Your task to perform on an android device: Open notification settings Image 0: 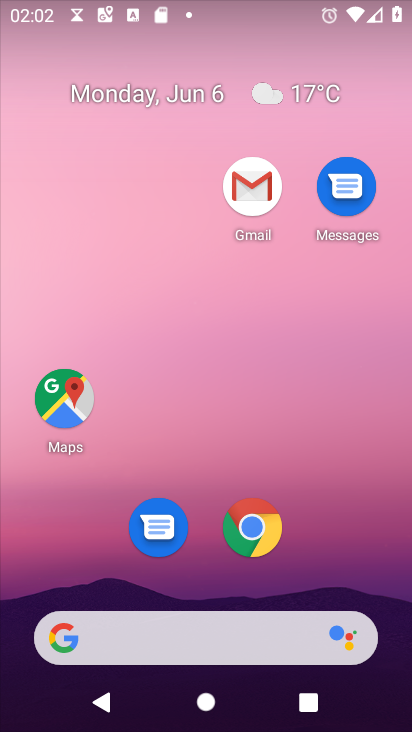
Step 0: drag from (288, 372) to (193, 190)
Your task to perform on an android device: Open notification settings Image 1: 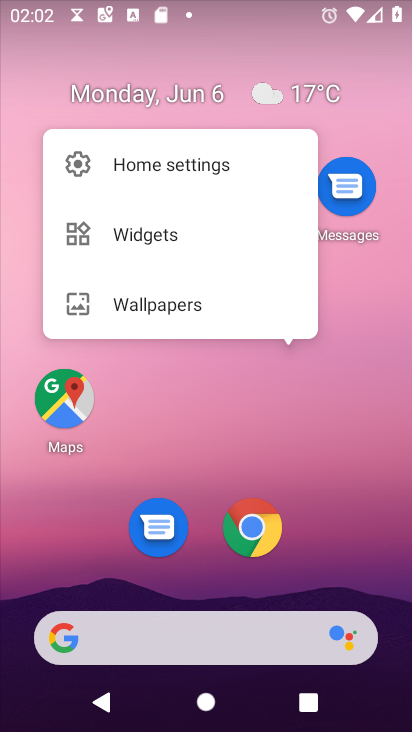
Step 1: click (341, 376)
Your task to perform on an android device: Open notification settings Image 2: 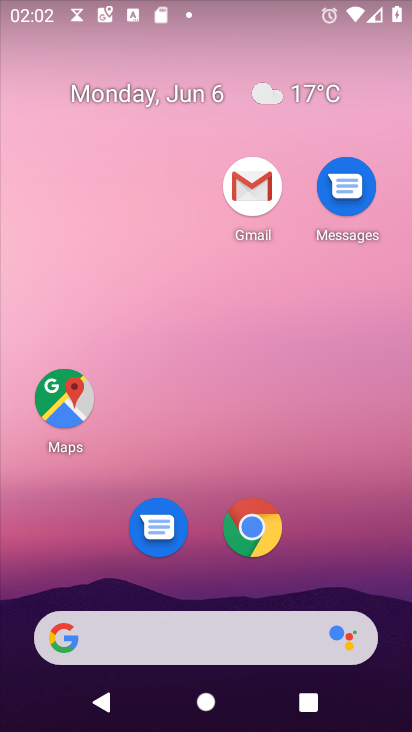
Step 2: drag from (209, 463) to (83, 146)
Your task to perform on an android device: Open notification settings Image 3: 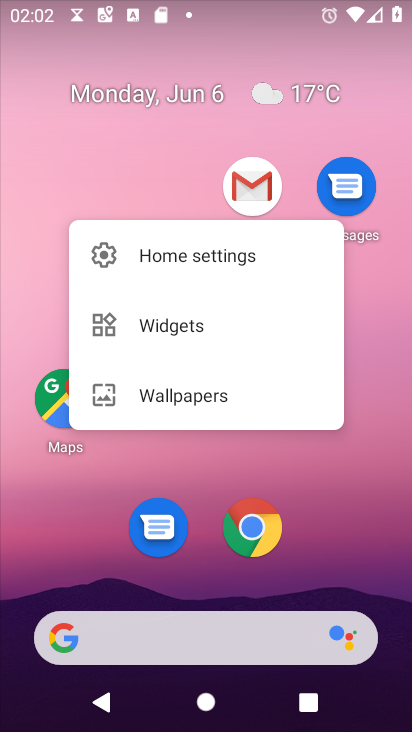
Step 3: click (405, 403)
Your task to perform on an android device: Open notification settings Image 4: 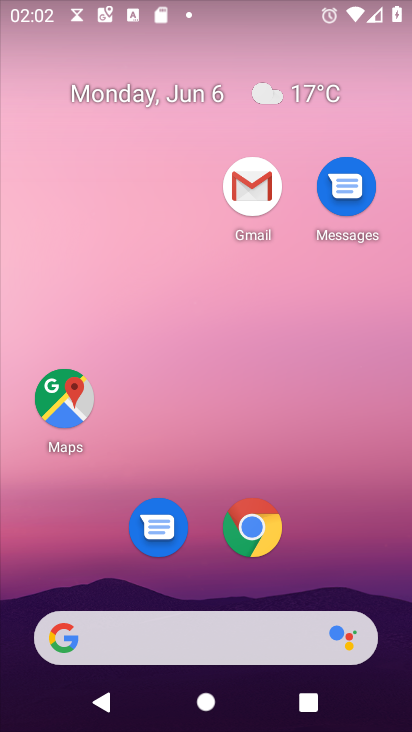
Step 4: drag from (129, 473) to (221, 30)
Your task to perform on an android device: Open notification settings Image 5: 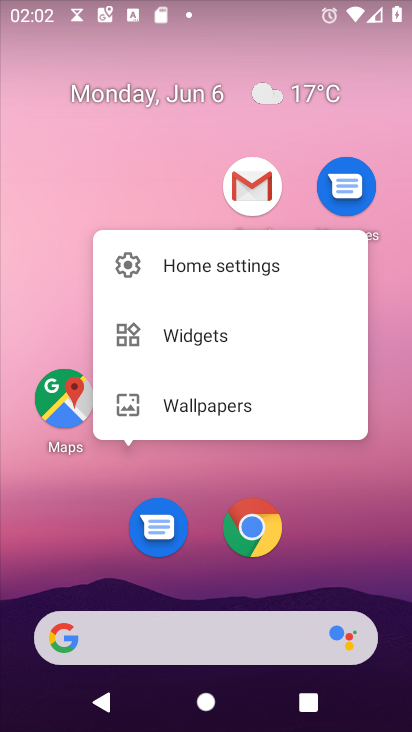
Step 5: click (73, 153)
Your task to perform on an android device: Open notification settings Image 6: 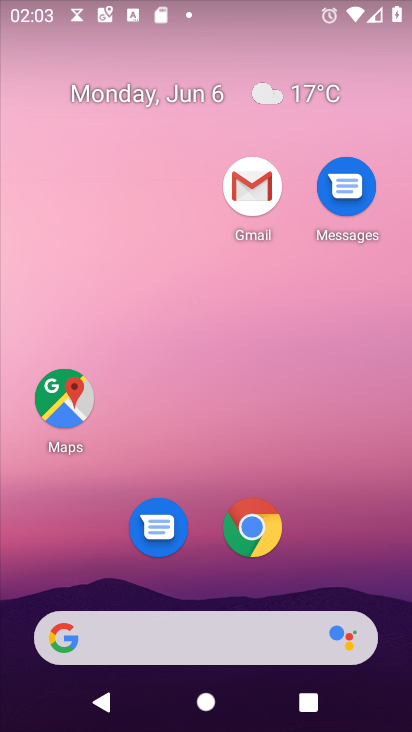
Step 6: click (213, 451)
Your task to perform on an android device: Open notification settings Image 7: 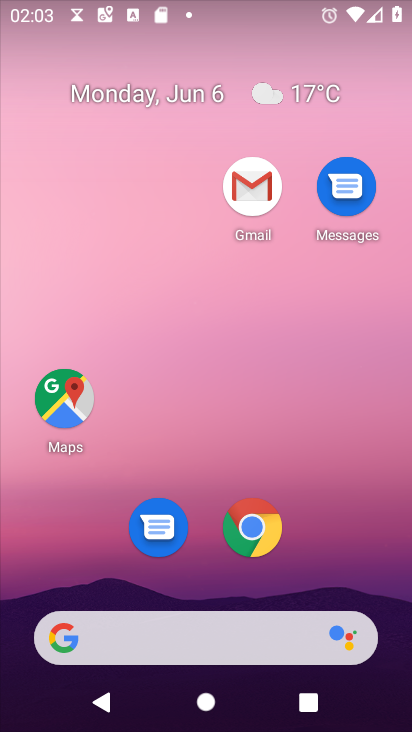
Step 7: drag from (215, 557) to (112, 60)
Your task to perform on an android device: Open notification settings Image 8: 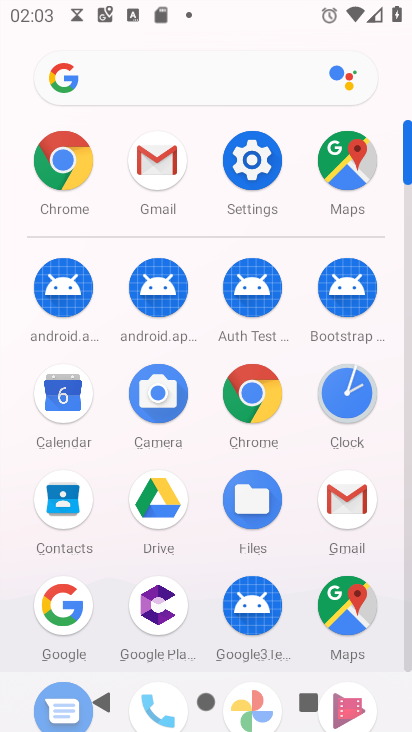
Step 8: click (248, 145)
Your task to perform on an android device: Open notification settings Image 9: 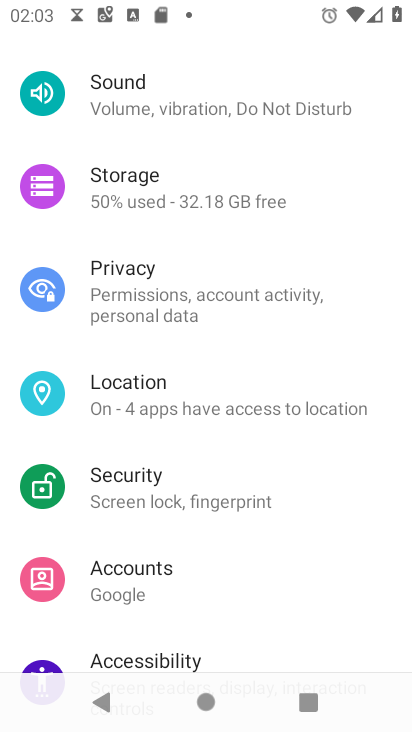
Step 9: drag from (245, 72) to (98, 582)
Your task to perform on an android device: Open notification settings Image 10: 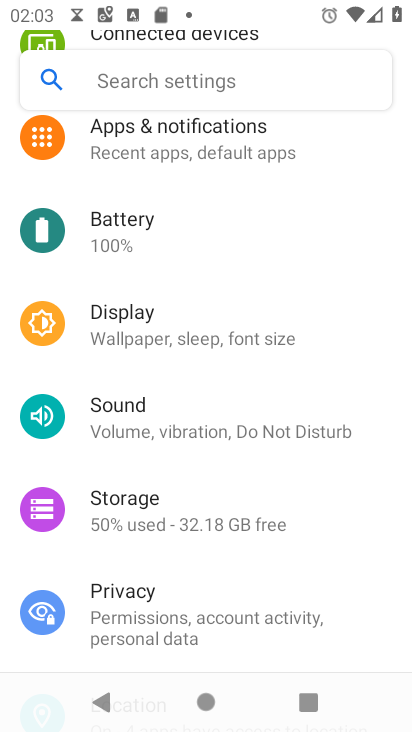
Step 10: click (213, 131)
Your task to perform on an android device: Open notification settings Image 11: 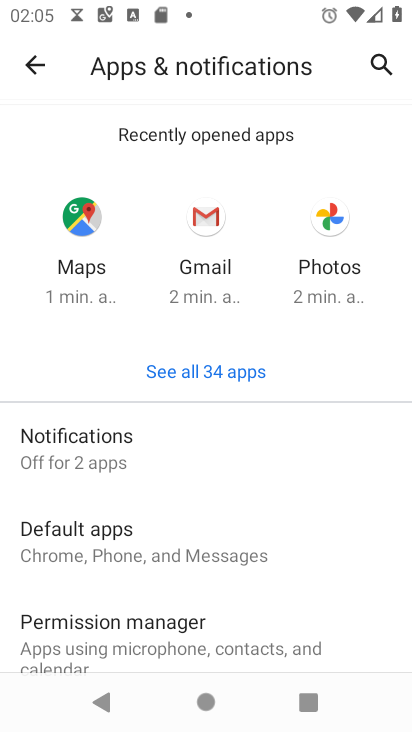
Step 11: click (177, 437)
Your task to perform on an android device: Open notification settings Image 12: 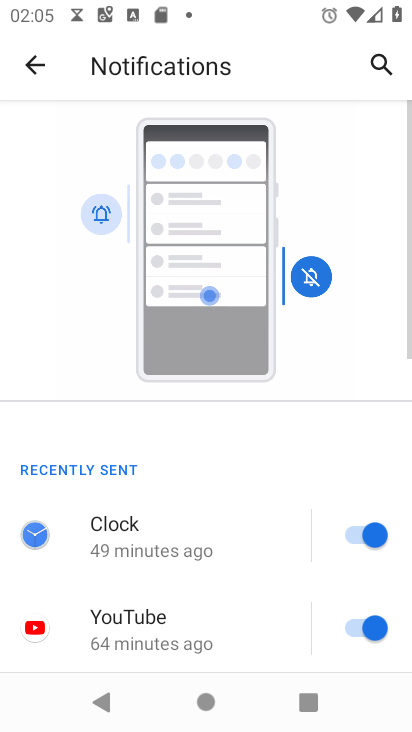
Step 12: task complete